Your task to perform on an android device: Search for flights from Helsinki to Tokyo Image 0: 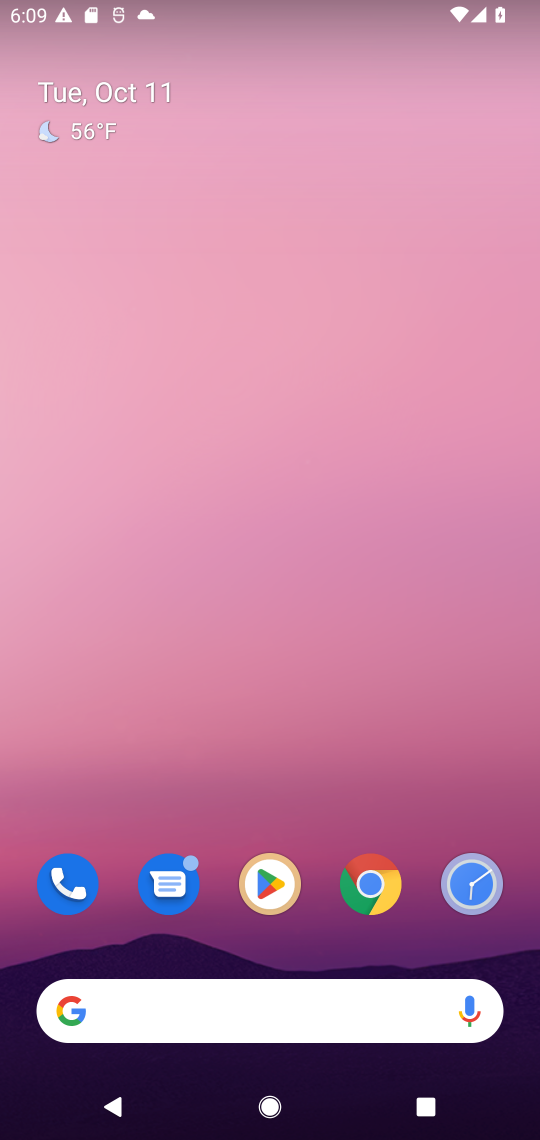
Step 0: drag from (295, 971) to (293, 4)
Your task to perform on an android device: Search for flights from Helsinki to Tokyo Image 1: 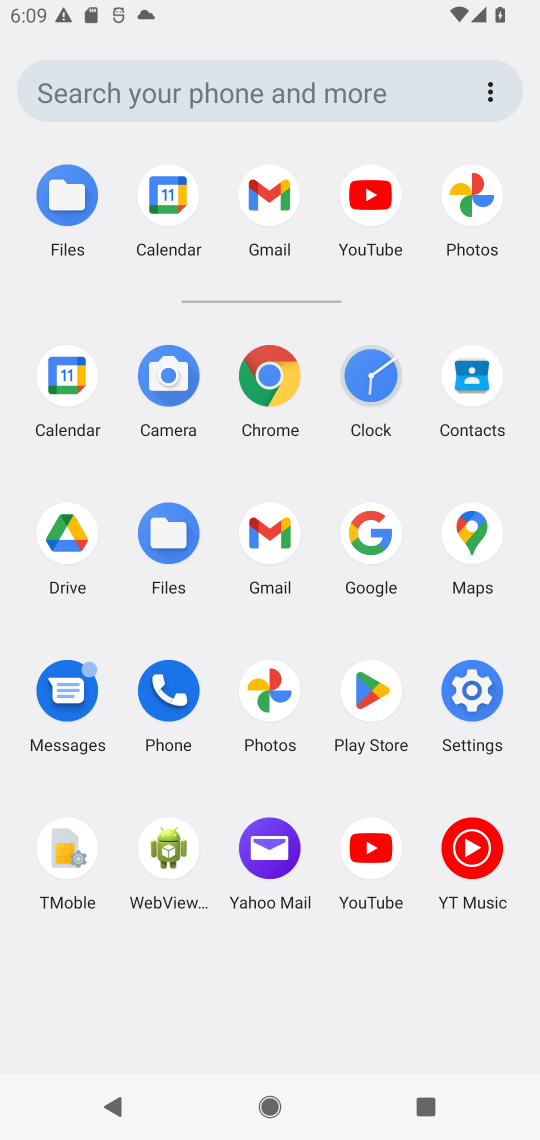
Step 1: click (367, 541)
Your task to perform on an android device: Search for flights from Helsinki to Tokyo Image 2: 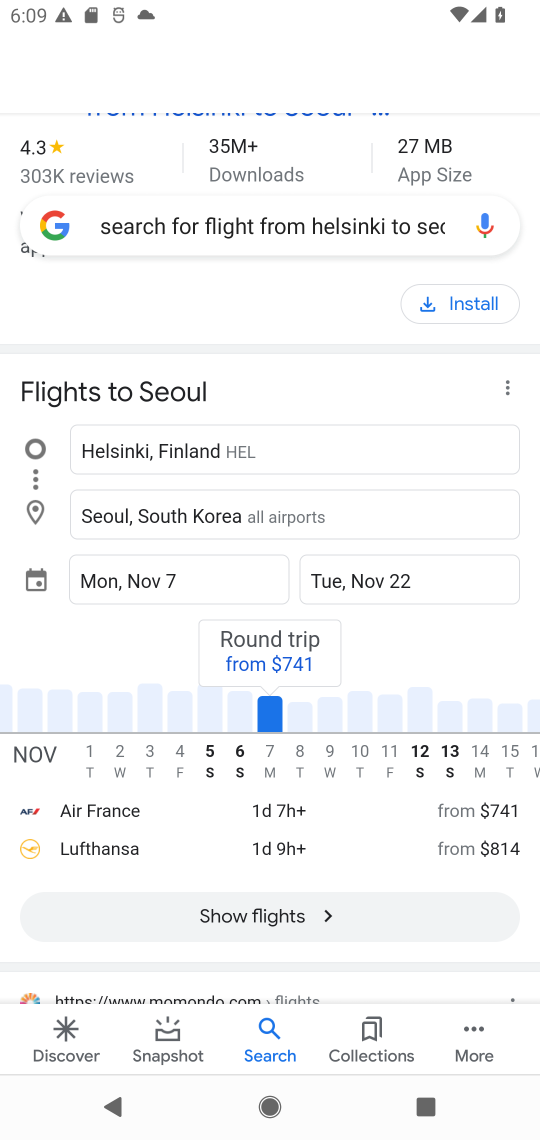
Step 2: click (318, 235)
Your task to perform on an android device: Search for flights from Helsinki to Tokyo Image 3: 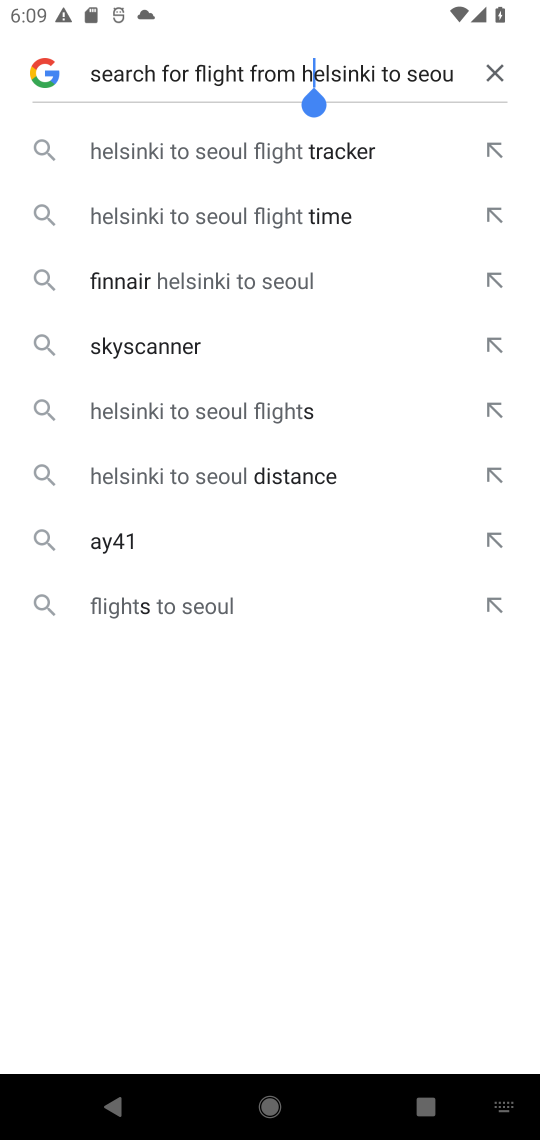
Step 3: click (499, 69)
Your task to perform on an android device: Search for flights from Helsinki to Tokyo Image 4: 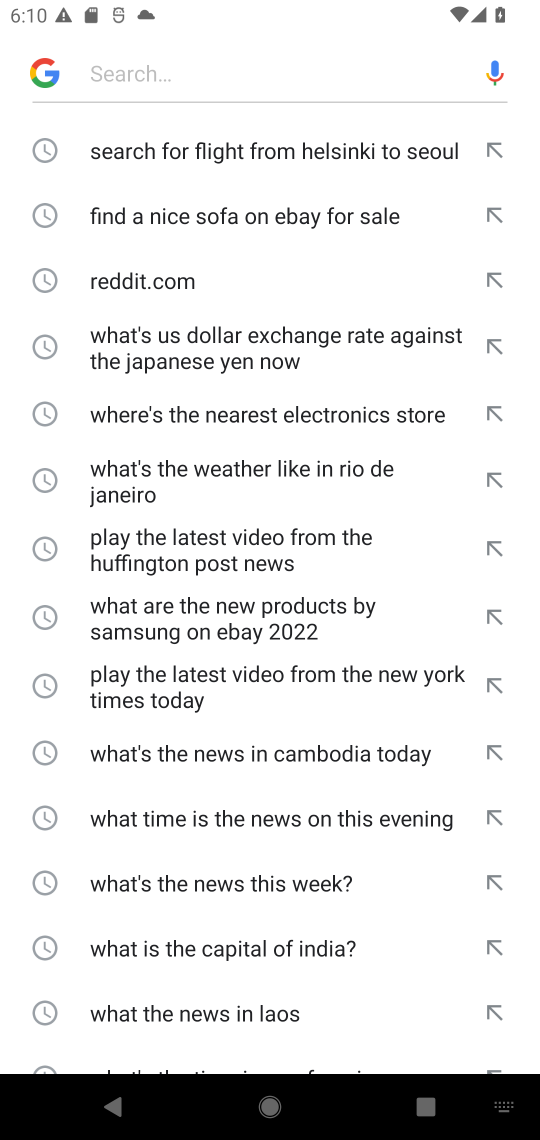
Step 4: type "Search for flights from Helsinki to Tokyo"
Your task to perform on an android device: Search for flights from Helsinki to Tokyo Image 5: 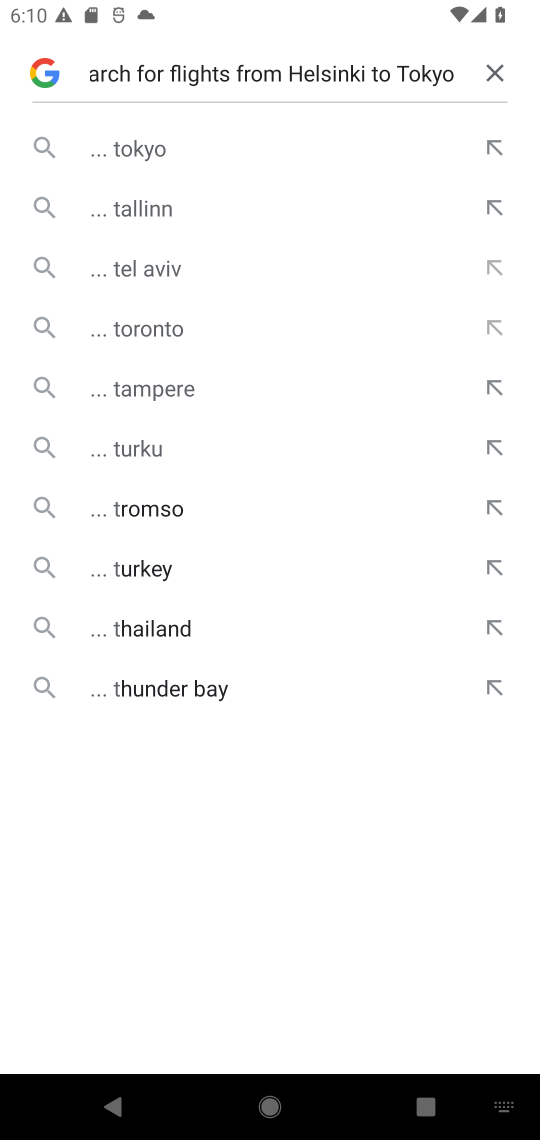
Step 5: click (140, 155)
Your task to perform on an android device: Search for flights from Helsinki to Tokyo Image 6: 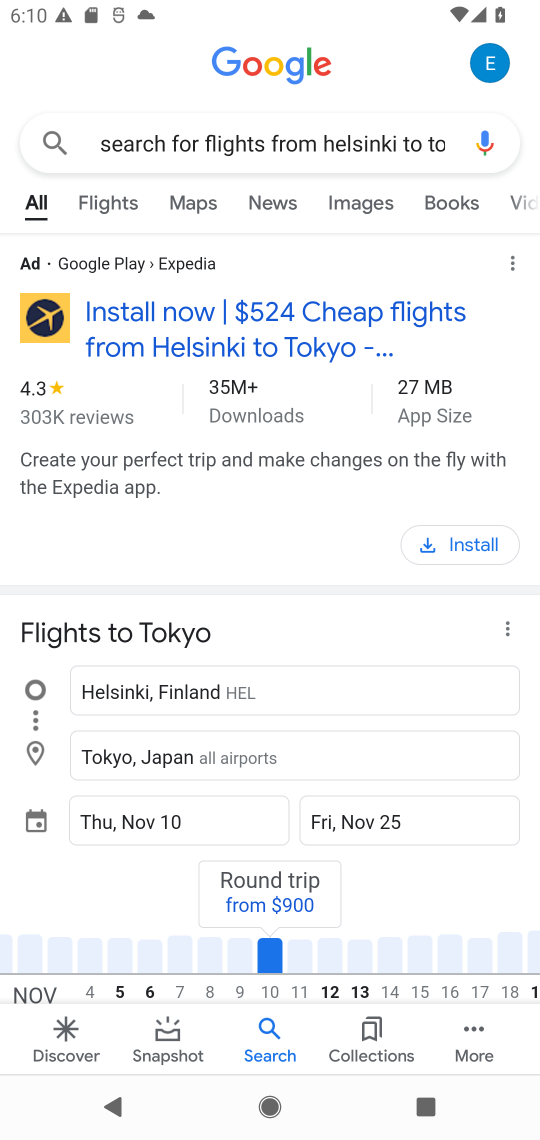
Step 6: task complete